Your task to perform on an android device: Search for Italian restaurants on Maps Image 0: 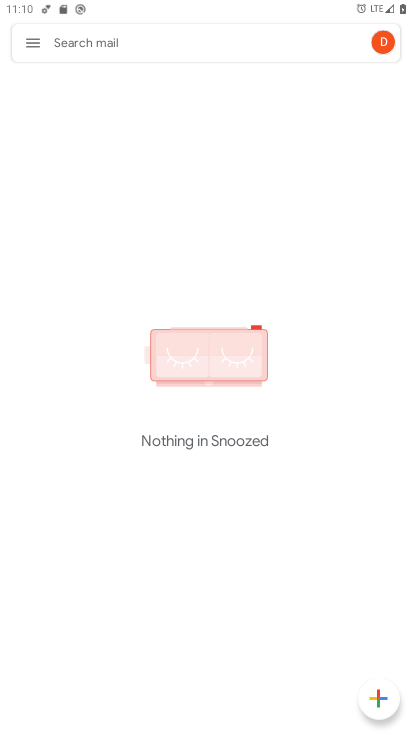
Step 0: press home button
Your task to perform on an android device: Search for Italian restaurants on Maps Image 1: 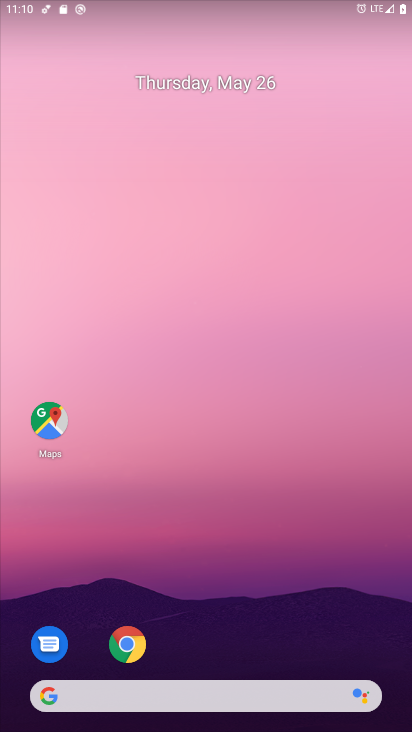
Step 1: click (386, 535)
Your task to perform on an android device: Search for Italian restaurants on Maps Image 2: 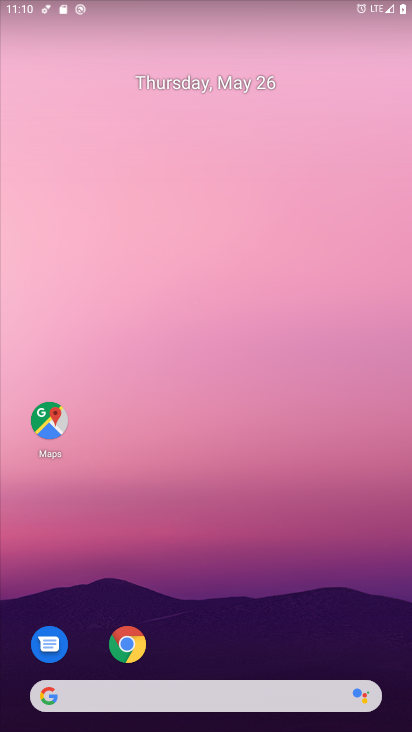
Step 2: drag from (356, 574) to (360, 390)
Your task to perform on an android device: Search for Italian restaurants on Maps Image 3: 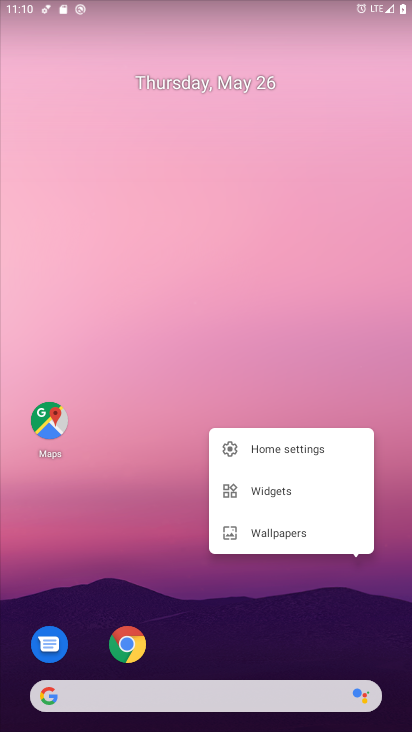
Step 3: click (332, 335)
Your task to perform on an android device: Search for Italian restaurants on Maps Image 4: 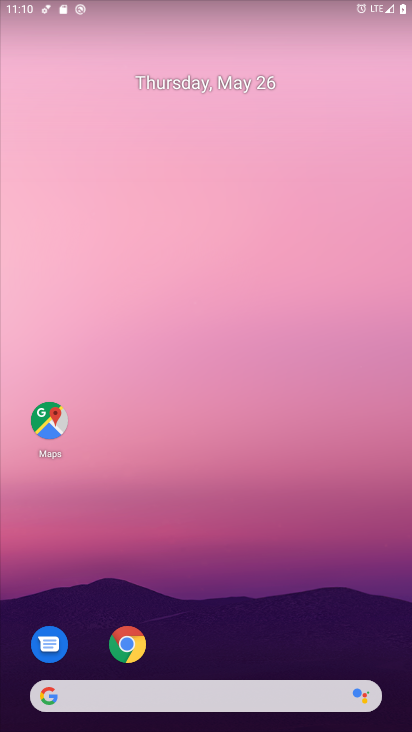
Step 4: drag from (315, 619) to (292, 173)
Your task to perform on an android device: Search for Italian restaurants on Maps Image 5: 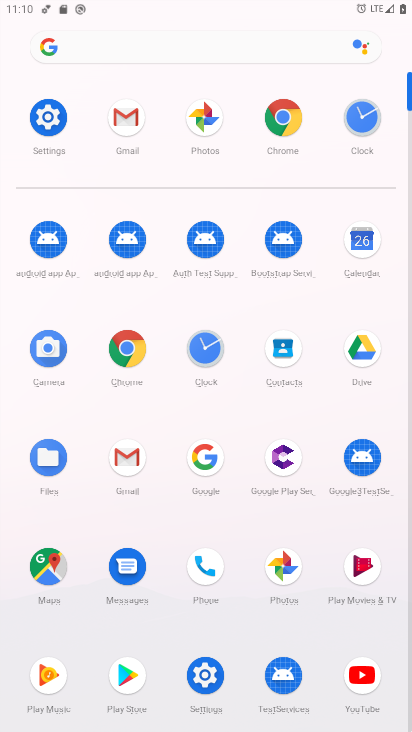
Step 5: click (48, 582)
Your task to perform on an android device: Search for Italian restaurants on Maps Image 6: 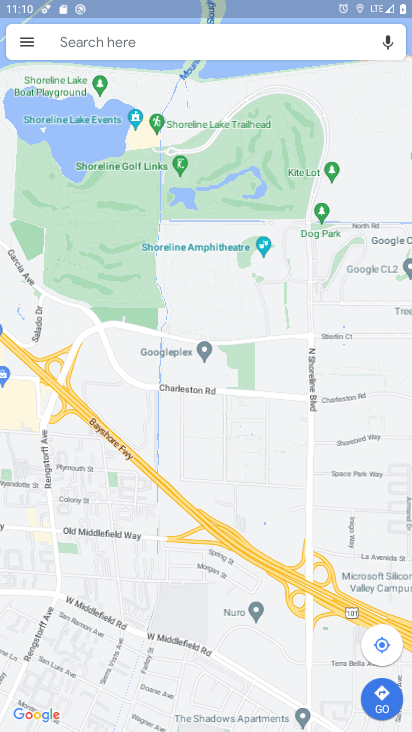
Step 6: click (160, 51)
Your task to perform on an android device: Search for Italian restaurants on Maps Image 7: 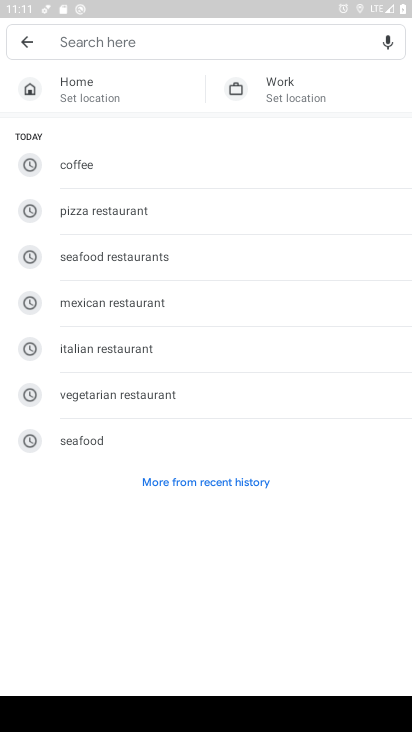
Step 7: type "italian restaurants"
Your task to perform on an android device: Search for Italian restaurants on Maps Image 8: 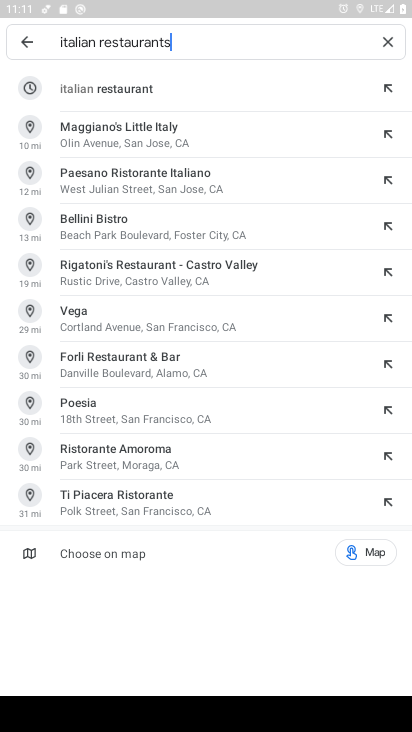
Step 8: click (223, 88)
Your task to perform on an android device: Search for Italian restaurants on Maps Image 9: 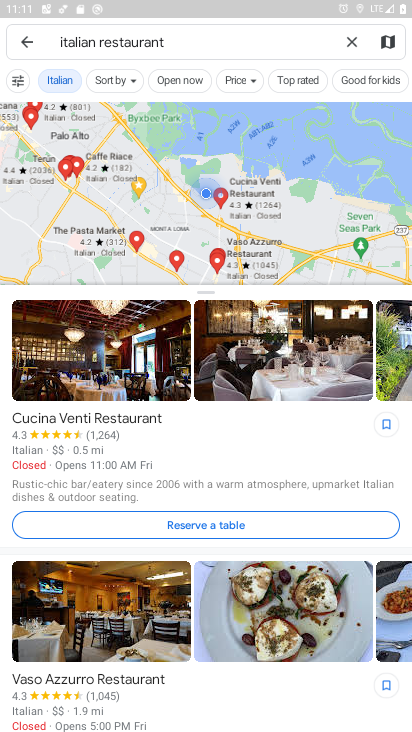
Step 9: task complete